Your task to perform on an android device: open app "VLC for Android" (install if not already installed) Image 0: 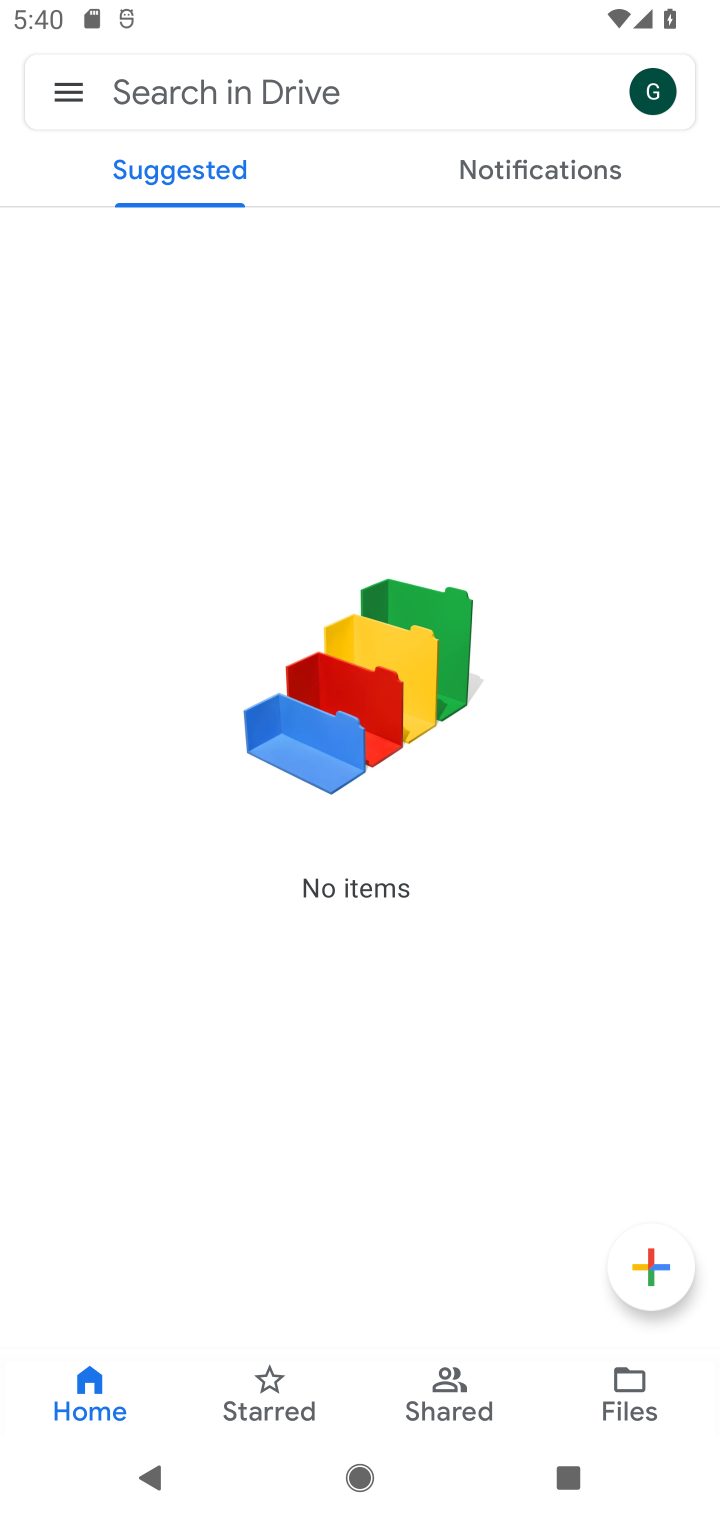
Step 0: press home button
Your task to perform on an android device: open app "VLC for Android" (install if not already installed) Image 1: 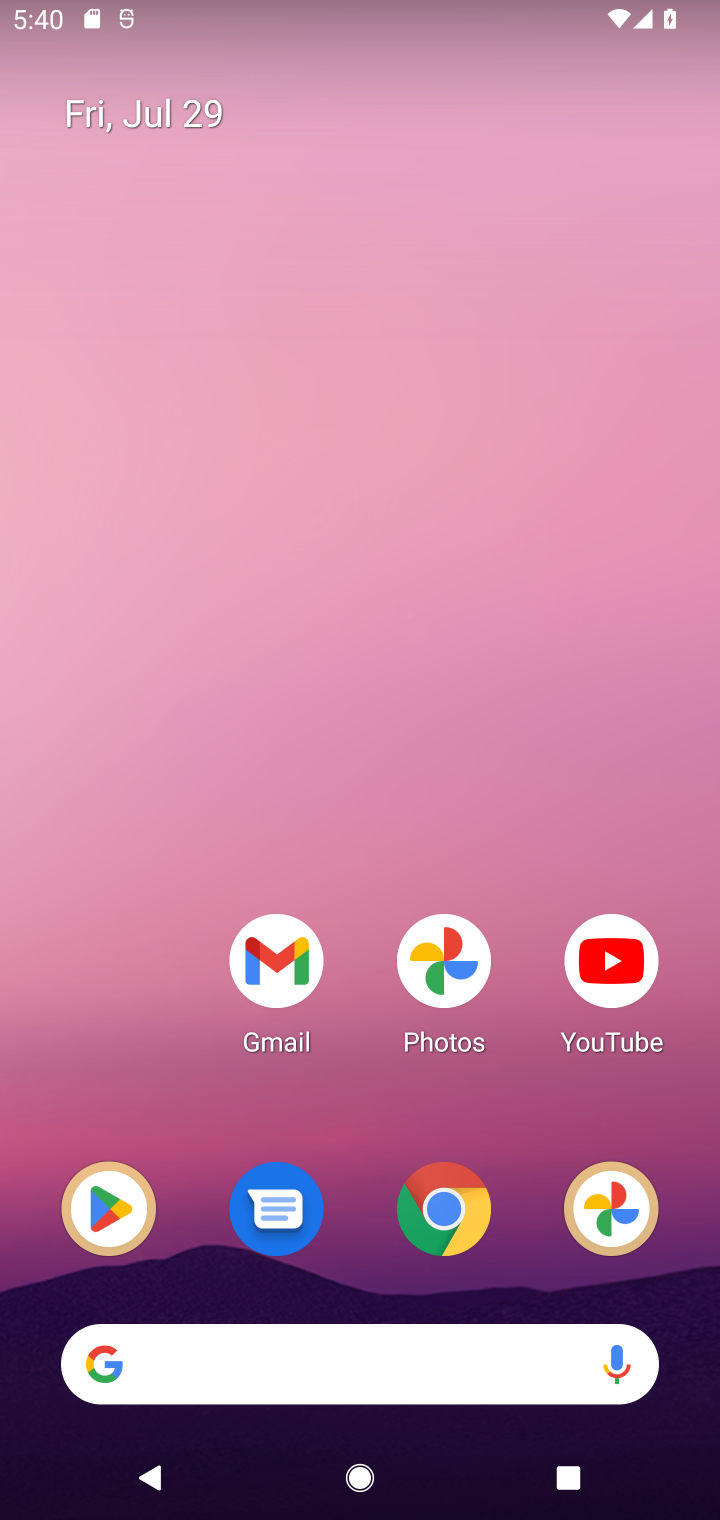
Step 1: click (104, 1209)
Your task to perform on an android device: open app "VLC for Android" (install if not already installed) Image 2: 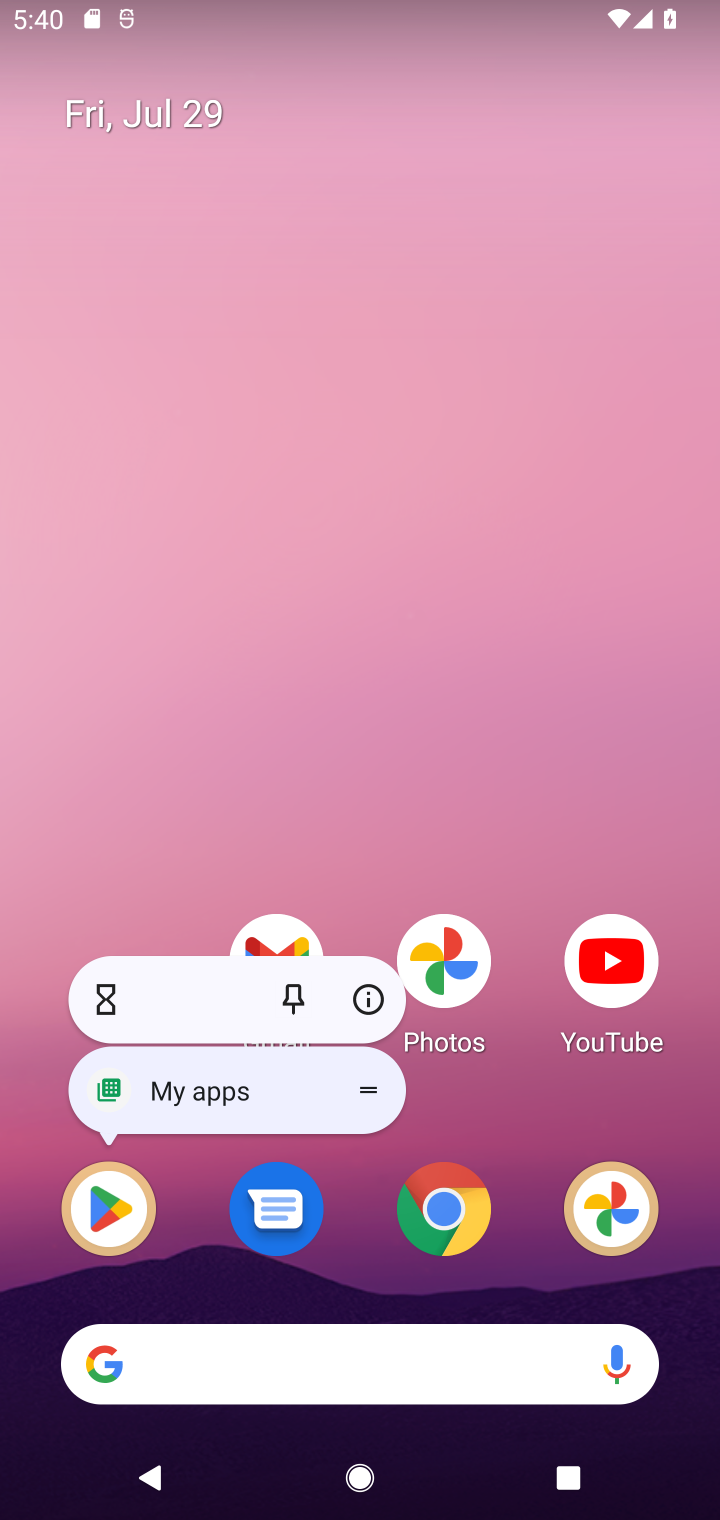
Step 2: click (104, 1209)
Your task to perform on an android device: open app "VLC for Android" (install if not already installed) Image 3: 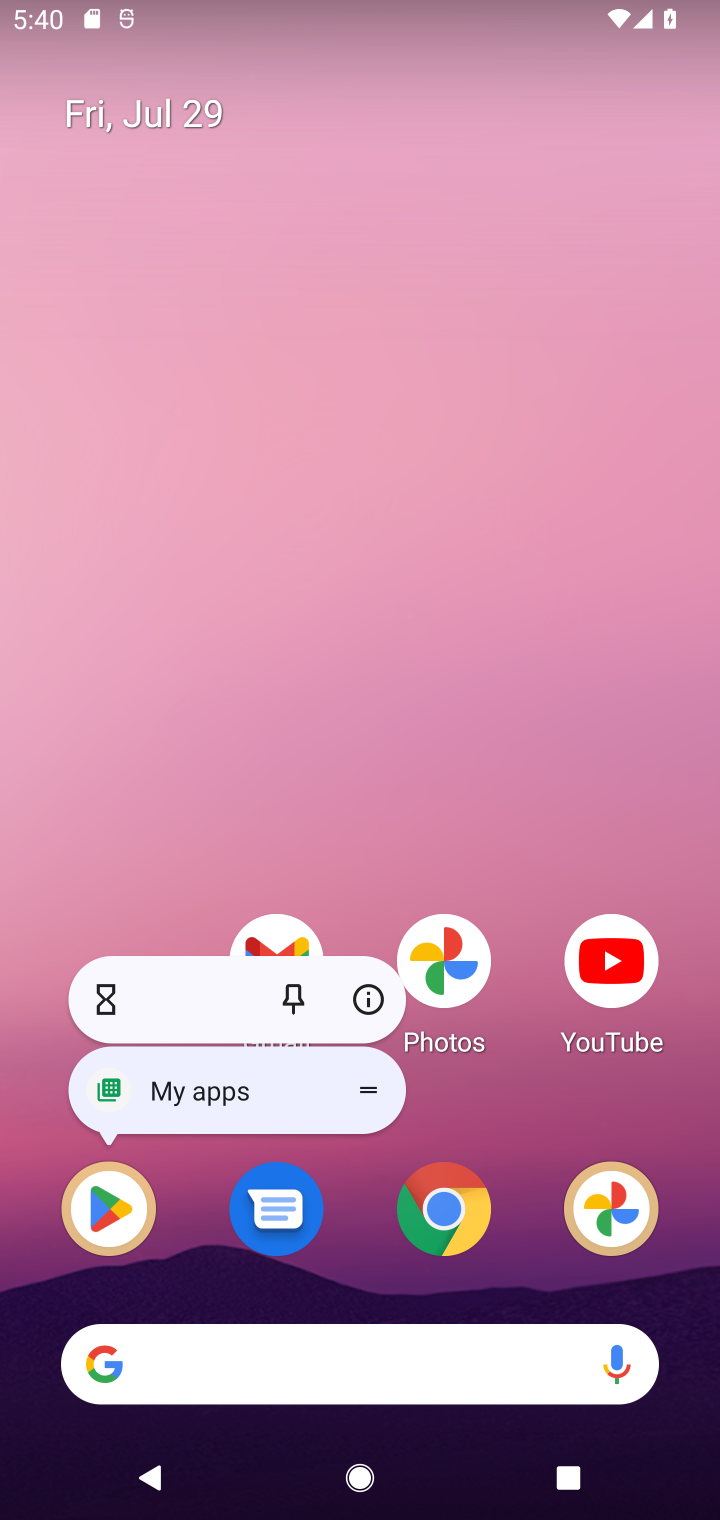
Step 3: click (104, 1209)
Your task to perform on an android device: open app "VLC for Android" (install if not already installed) Image 4: 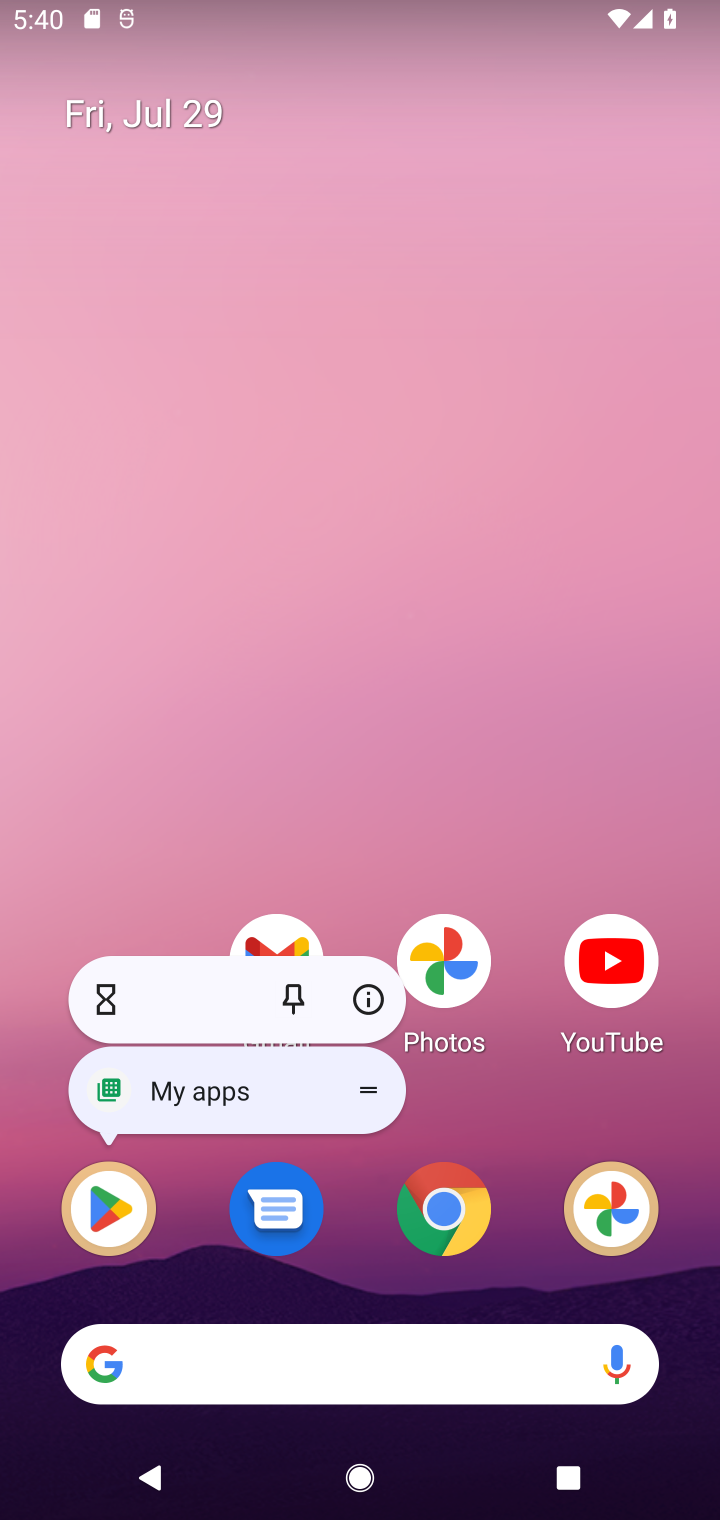
Step 4: click (104, 1210)
Your task to perform on an android device: open app "VLC for Android" (install if not already installed) Image 5: 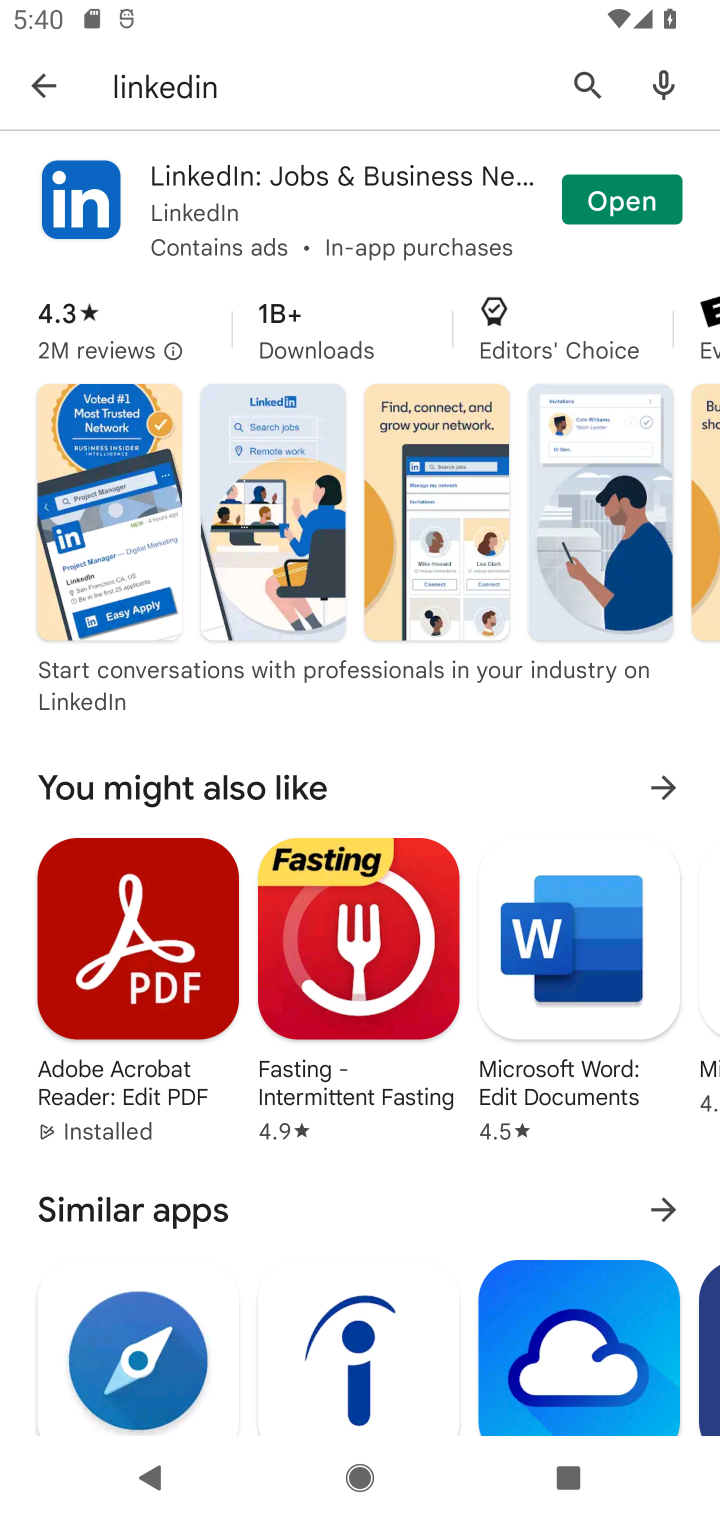
Step 5: click (574, 84)
Your task to perform on an android device: open app "VLC for Android" (install if not already installed) Image 6: 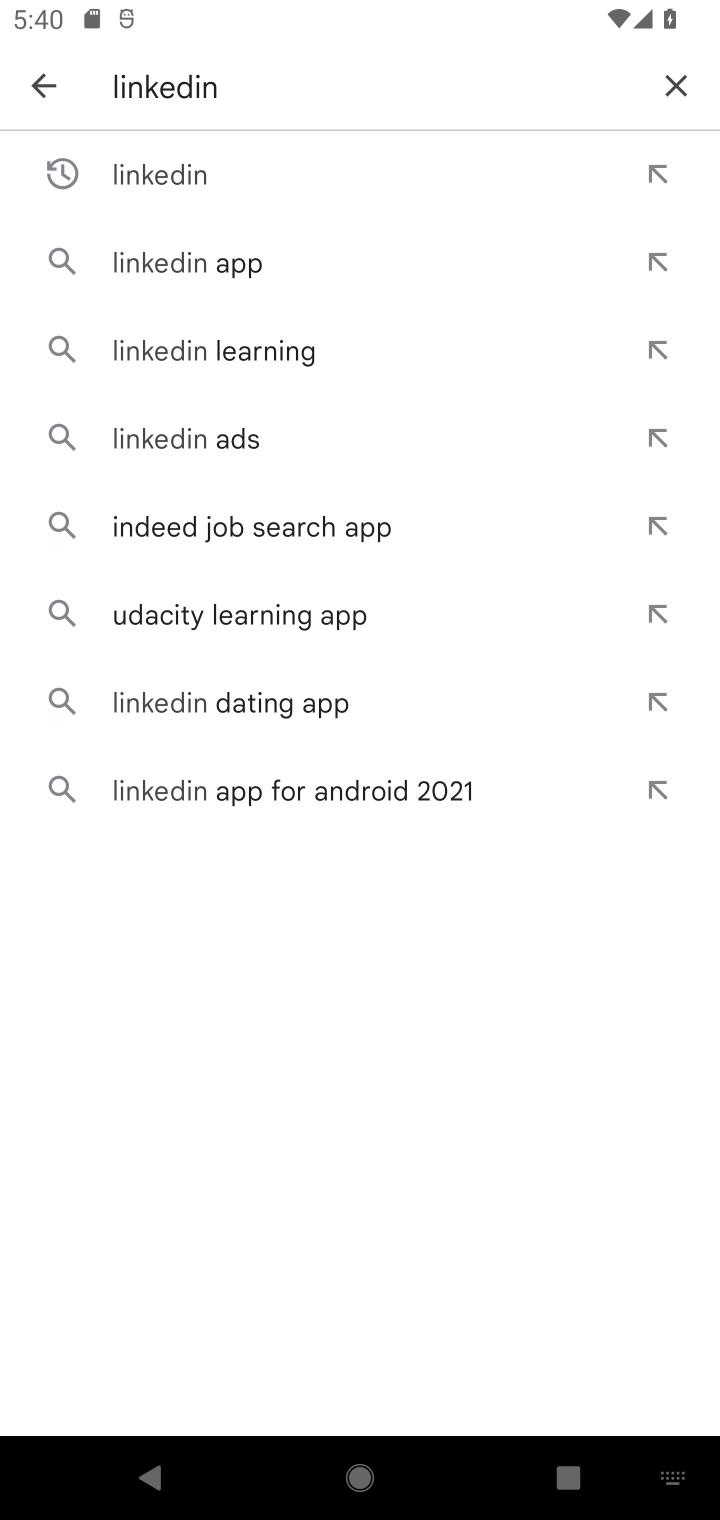
Step 6: click (673, 84)
Your task to perform on an android device: open app "VLC for Android" (install if not already installed) Image 7: 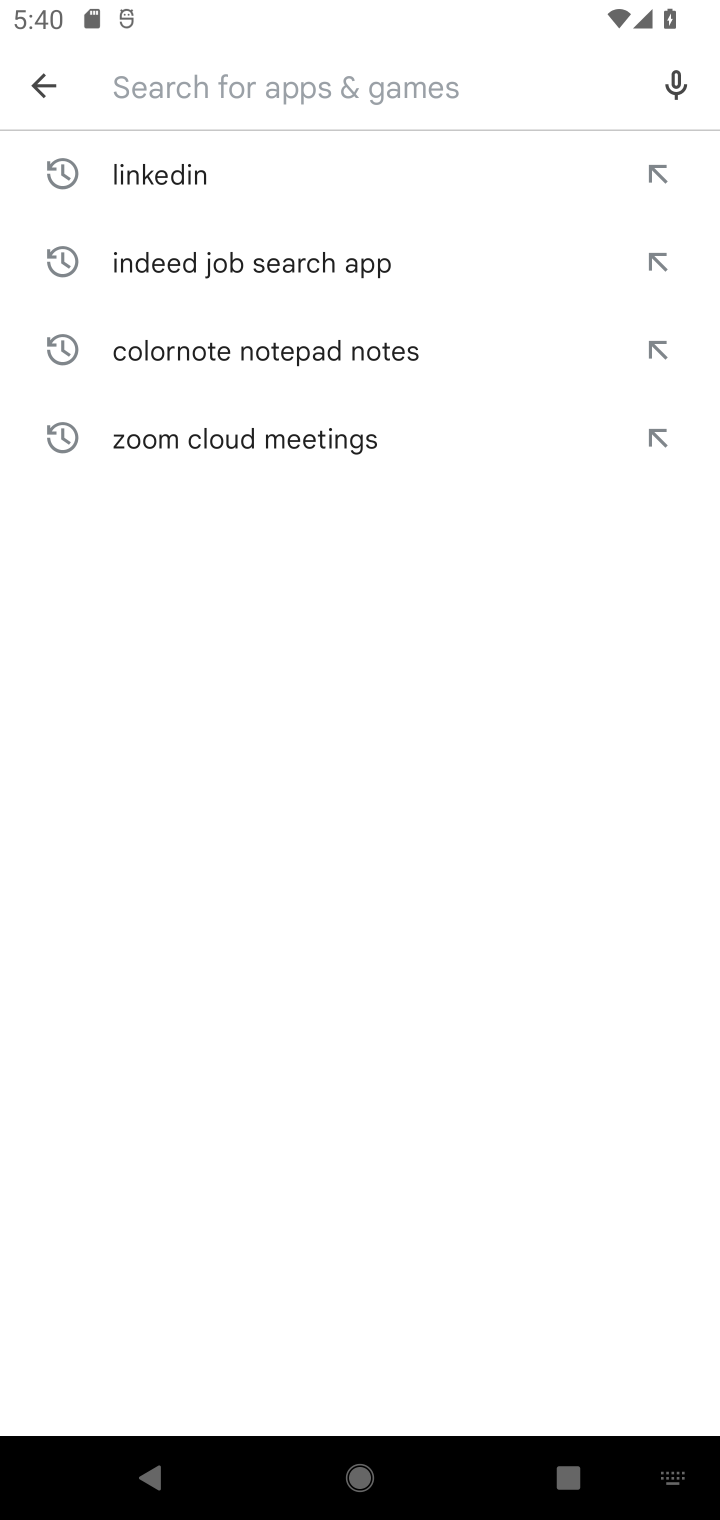
Step 7: type "VLC for Android"
Your task to perform on an android device: open app "VLC for Android" (install if not already installed) Image 8: 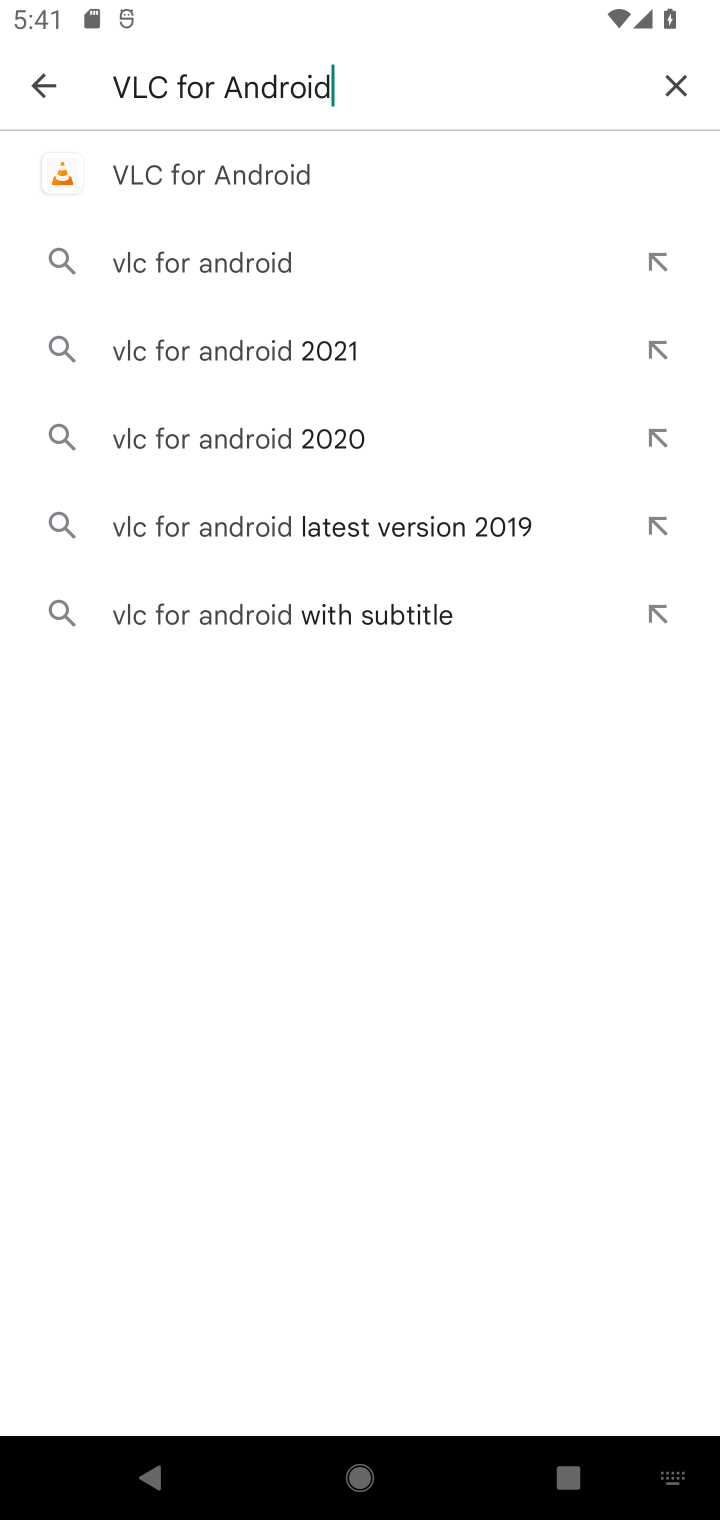
Step 8: click (152, 174)
Your task to perform on an android device: open app "VLC for Android" (install if not already installed) Image 9: 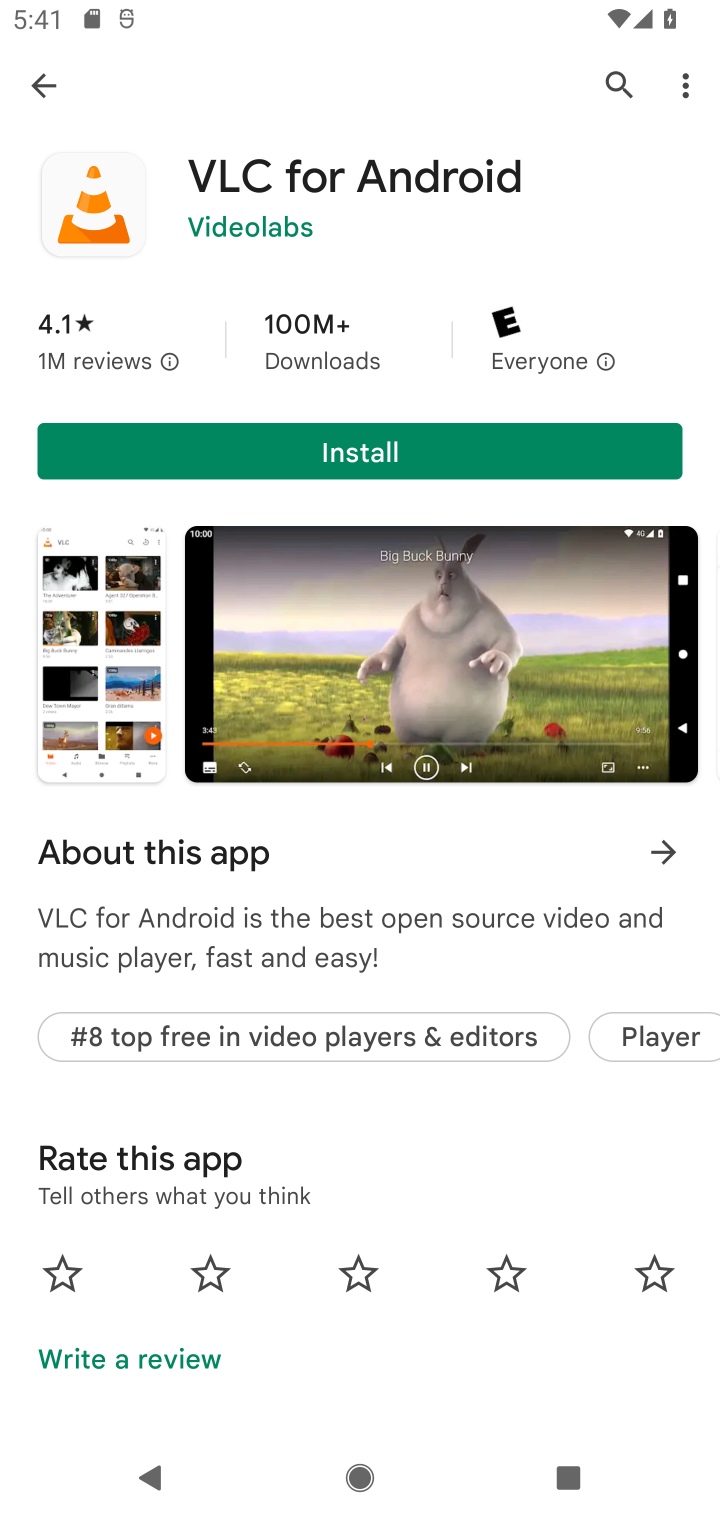
Step 9: click (333, 447)
Your task to perform on an android device: open app "VLC for Android" (install if not already installed) Image 10: 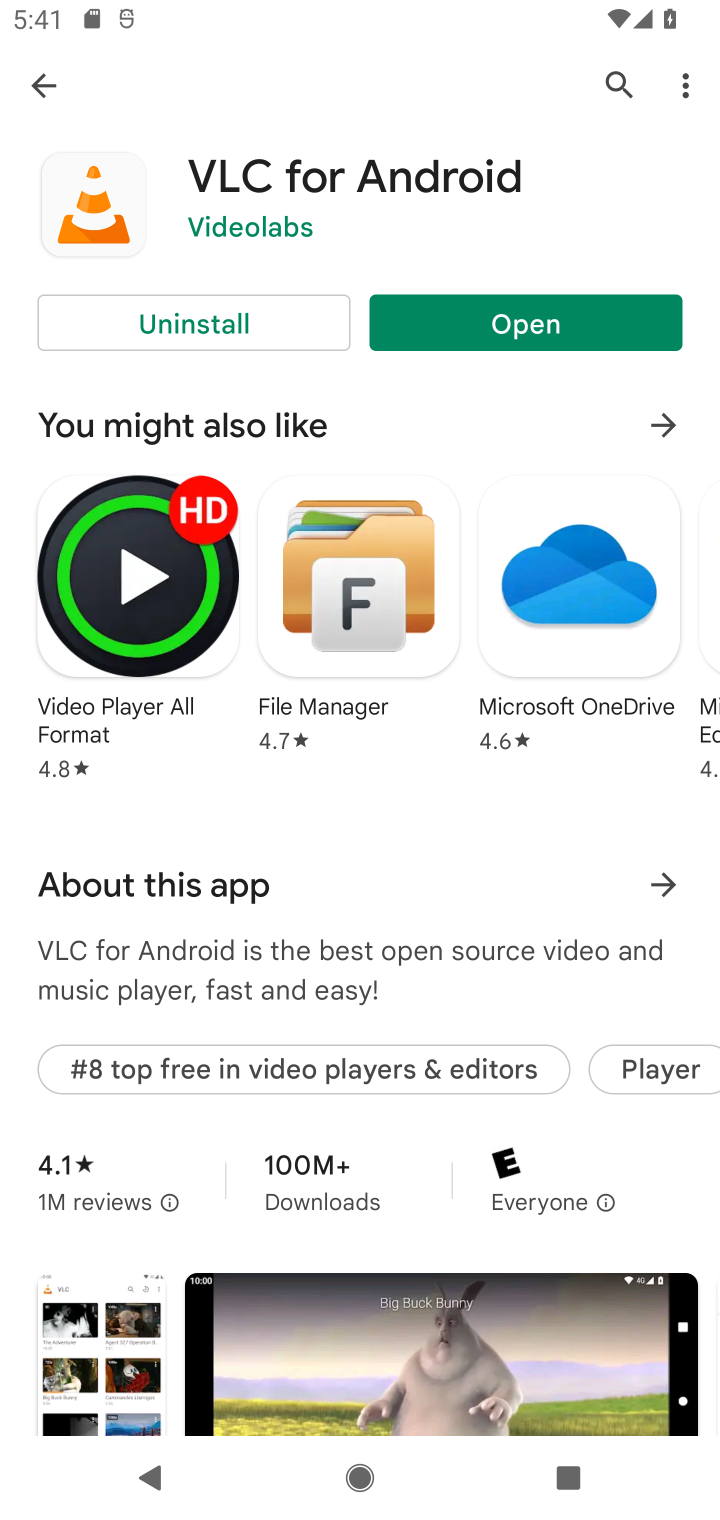
Step 10: click (527, 332)
Your task to perform on an android device: open app "VLC for Android" (install if not already installed) Image 11: 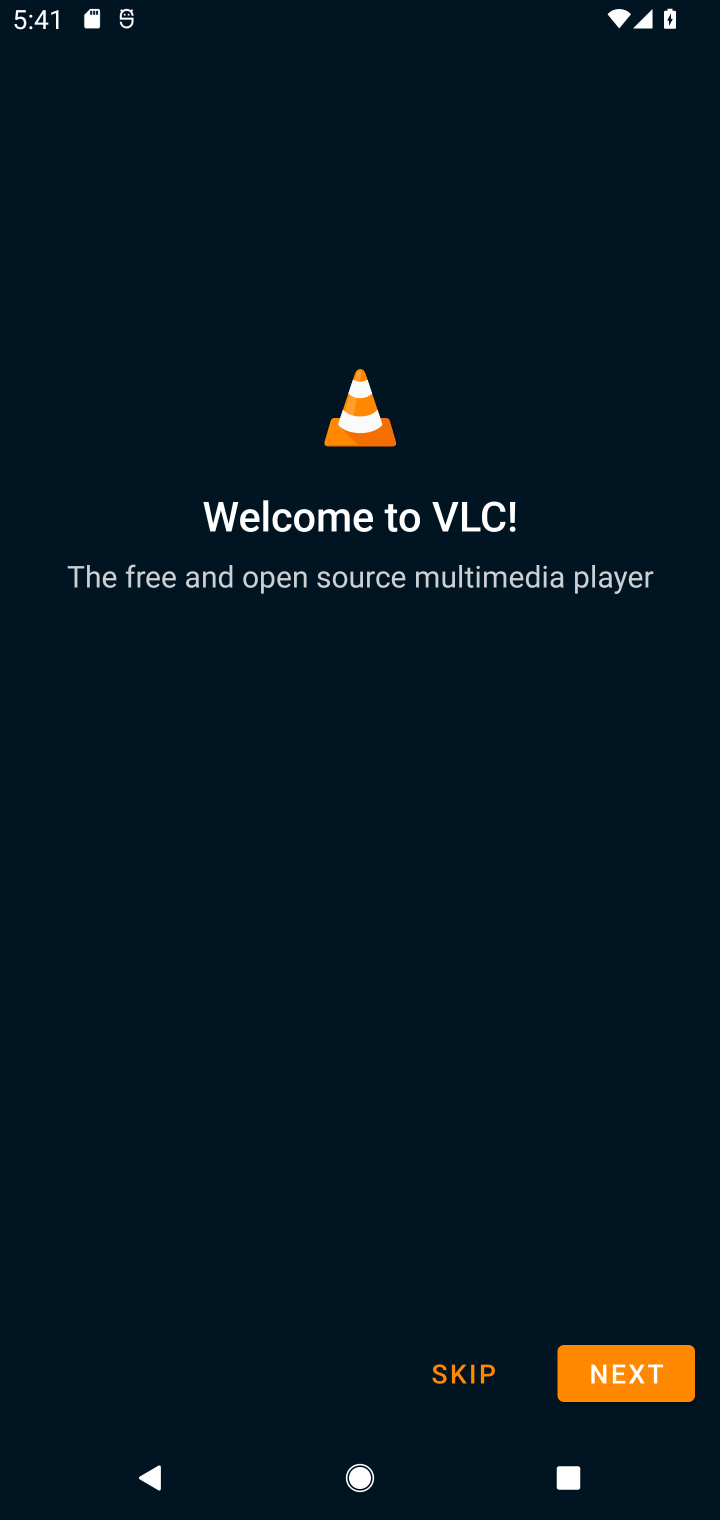
Step 11: task complete